Your task to perform on an android device: toggle airplane mode Image 0: 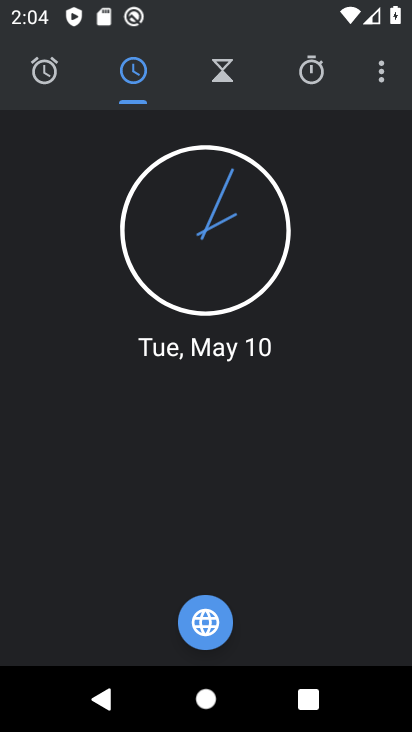
Step 0: press home button
Your task to perform on an android device: toggle airplane mode Image 1: 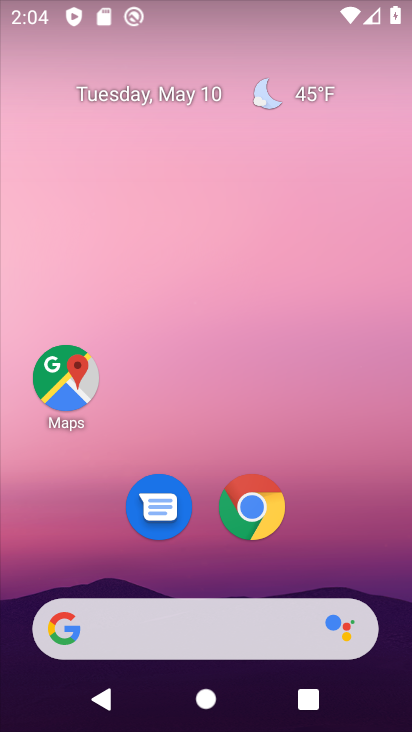
Step 1: drag from (317, 506) to (170, 73)
Your task to perform on an android device: toggle airplane mode Image 2: 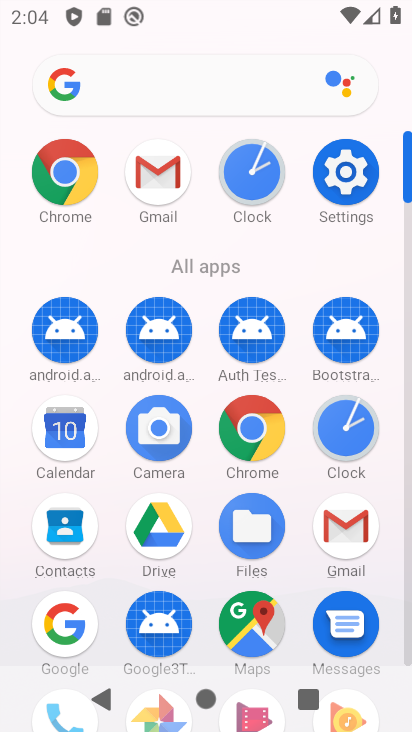
Step 2: click (350, 166)
Your task to perform on an android device: toggle airplane mode Image 3: 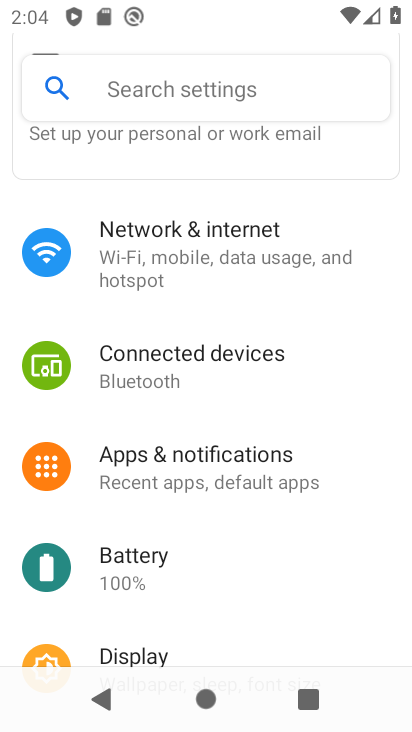
Step 3: click (200, 267)
Your task to perform on an android device: toggle airplane mode Image 4: 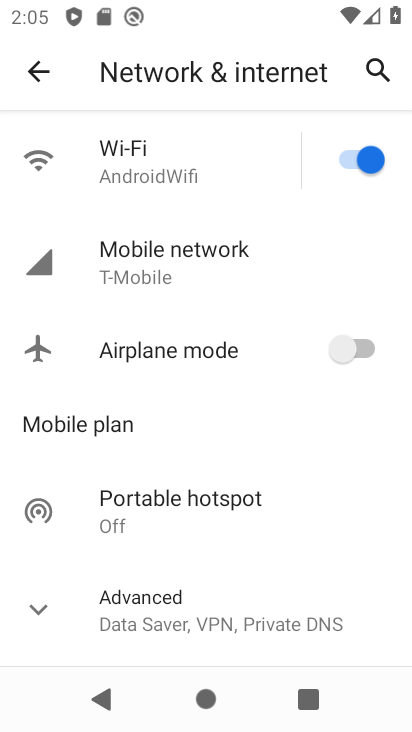
Step 4: click (350, 353)
Your task to perform on an android device: toggle airplane mode Image 5: 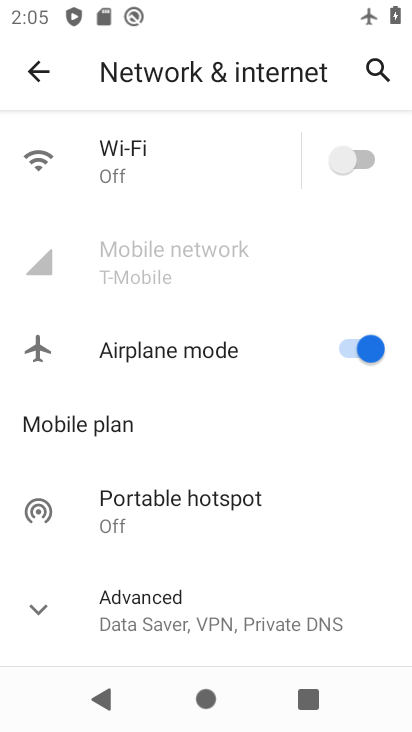
Step 5: task complete